Your task to perform on an android device: Open calendar and show me the first week of next month Image 0: 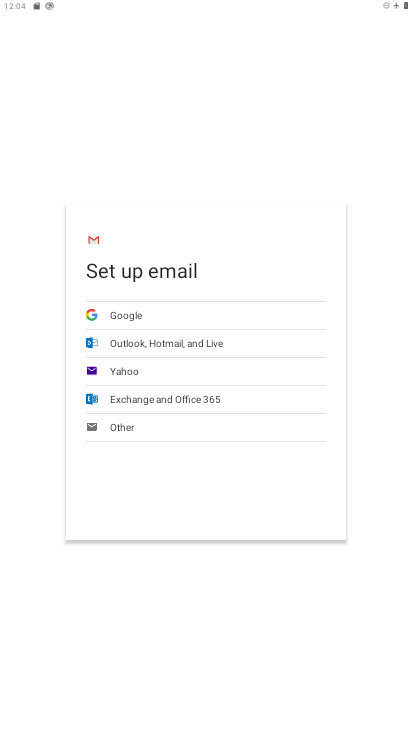
Step 0: press home button
Your task to perform on an android device: Open calendar and show me the first week of next month Image 1: 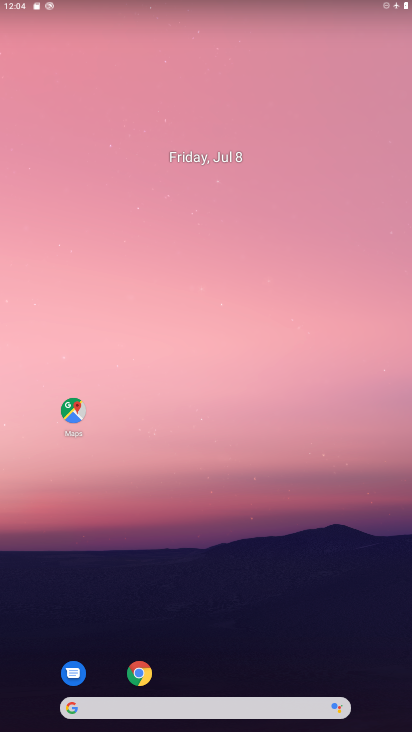
Step 1: drag from (220, 569) to (161, 60)
Your task to perform on an android device: Open calendar and show me the first week of next month Image 2: 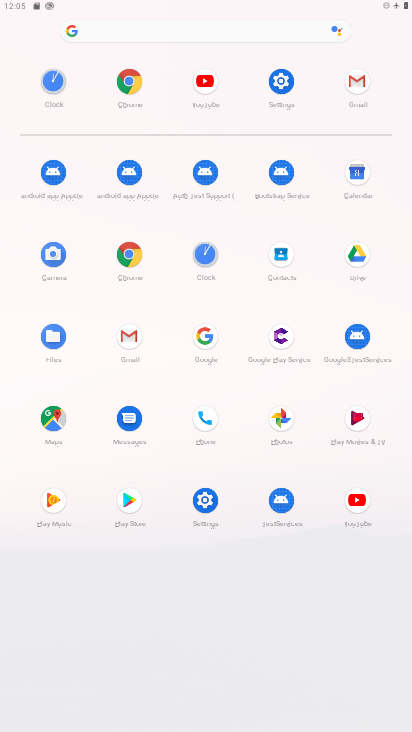
Step 2: click (348, 172)
Your task to perform on an android device: Open calendar and show me the first week of next month Image 3: 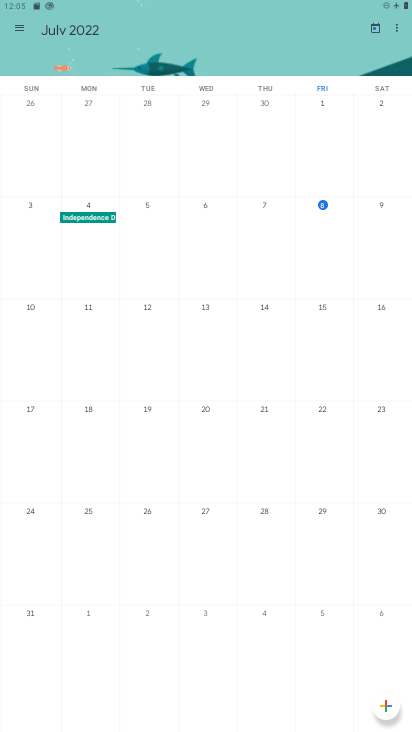
Step 3: task complete